Your task to perform on an android device: Show me recent news Image 0: 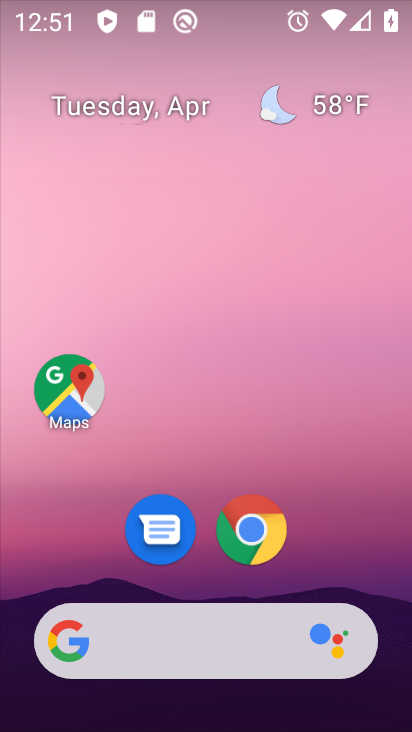
Step 0: drag from (394, 618) to (233, 60)
Your task to perform on an android device: Show me recent news Image 1: 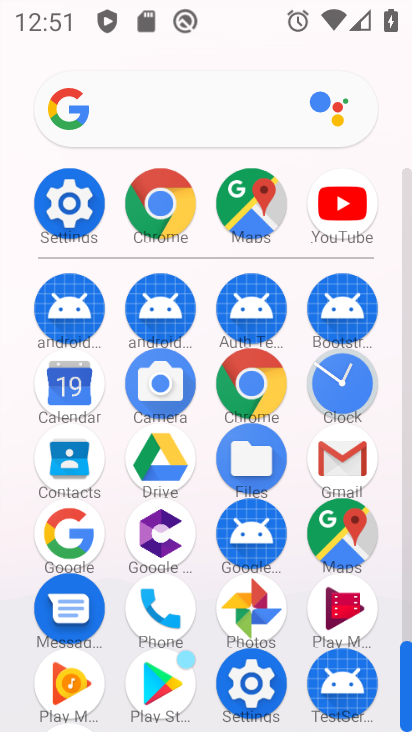
Step 1: click (254, 395)
Your task to perform on an android device: Show me recent news Image 2: 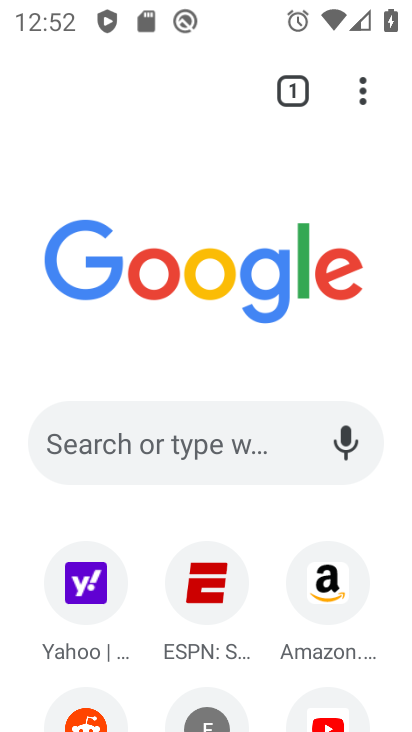
Step 2: drag from (269, 635) to (189, 76)
Your task to perform on an android device: Show me recent news Image 3: 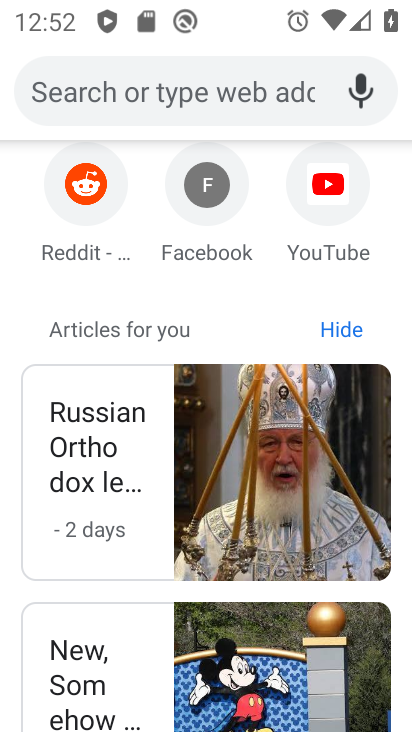
Step 3: click (111, 424)
Your task to perform on an android device: Show me recent news Image 4: 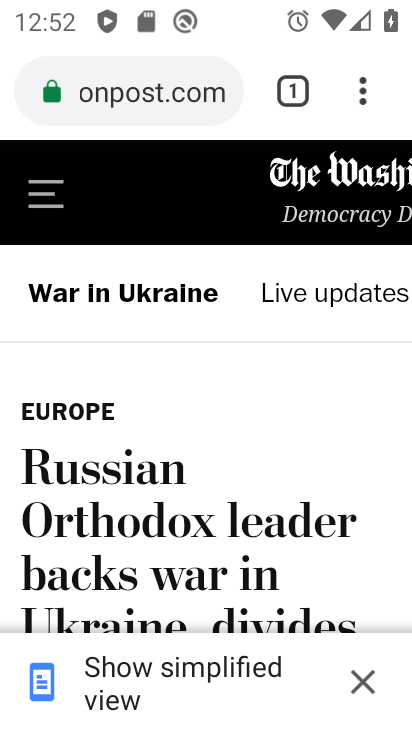
Step 4: task complete